Your task to perform on an android device: turn on improve location accuracy Image 0: 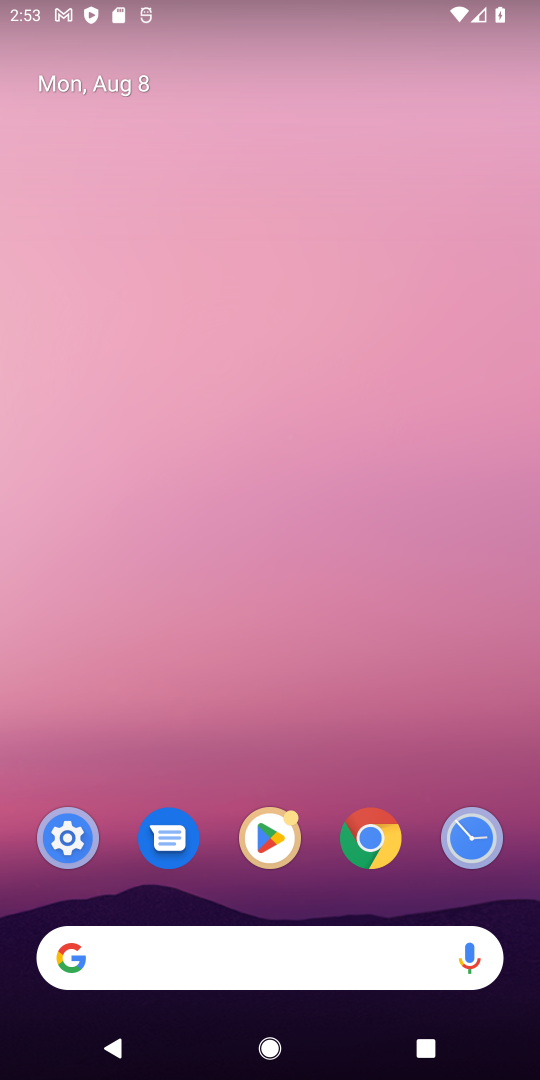
Step 0: drag from (307, 972) to (321, 194)
Your task to perform on an android device: turn on improve location accuracy Image 1: 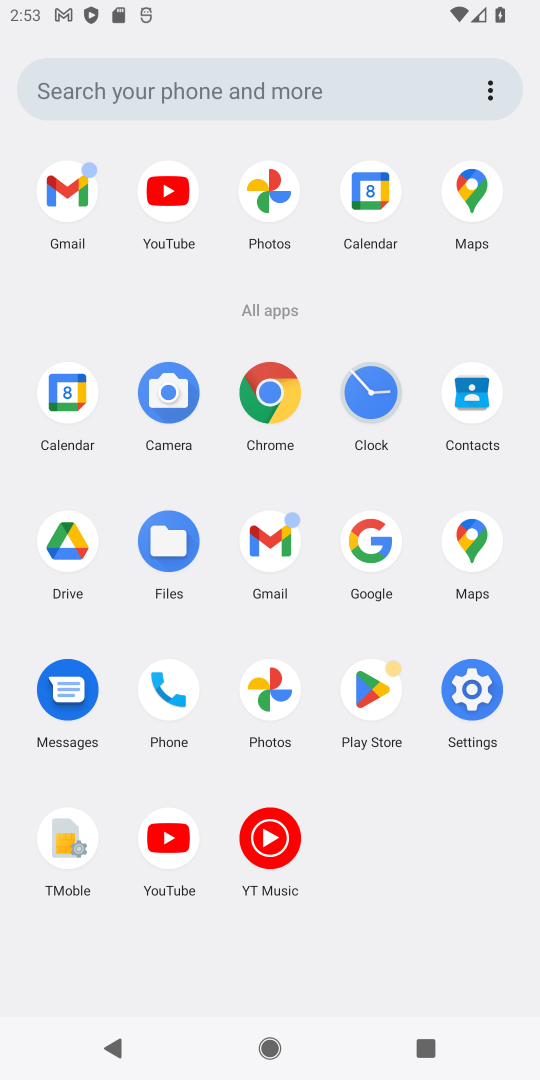
Step 1: click (469, 693)
Your task to perform on an android device: turn on improve location accuracy Image 2: 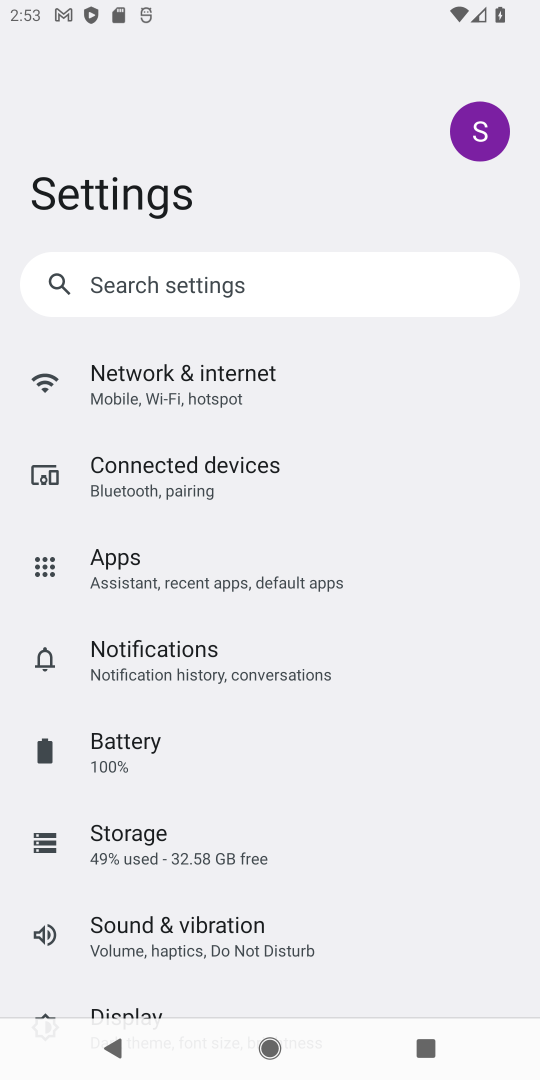
Step 2: drag from (228, 740) to (328, 521)
Your task to perform on an android device: turn on improve location accuracy Image 3: 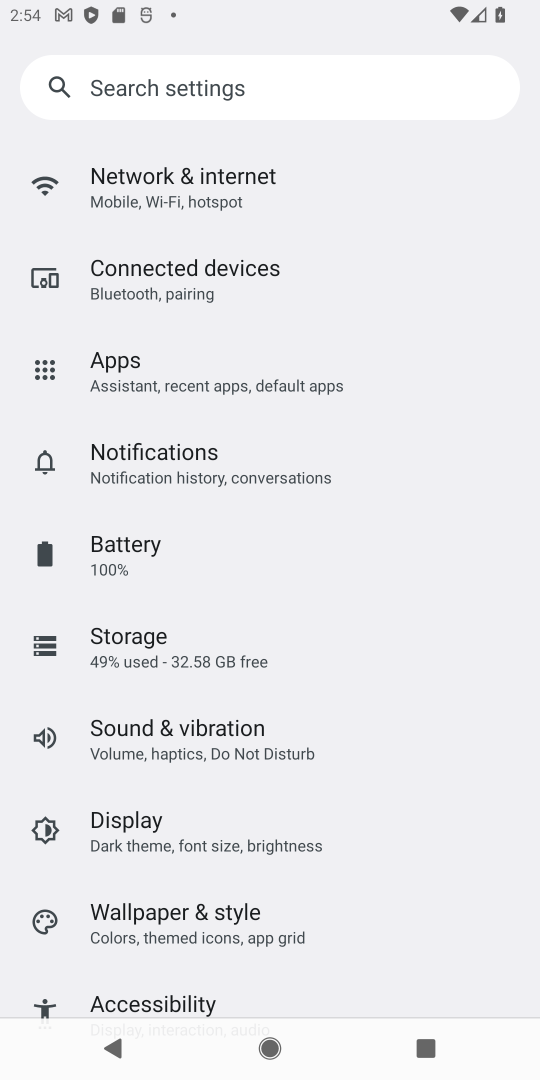
Step 3: drag from (237, 822) to (322, 663)
Your task to perform on an android device: turn on improve location accuracy Image 4: 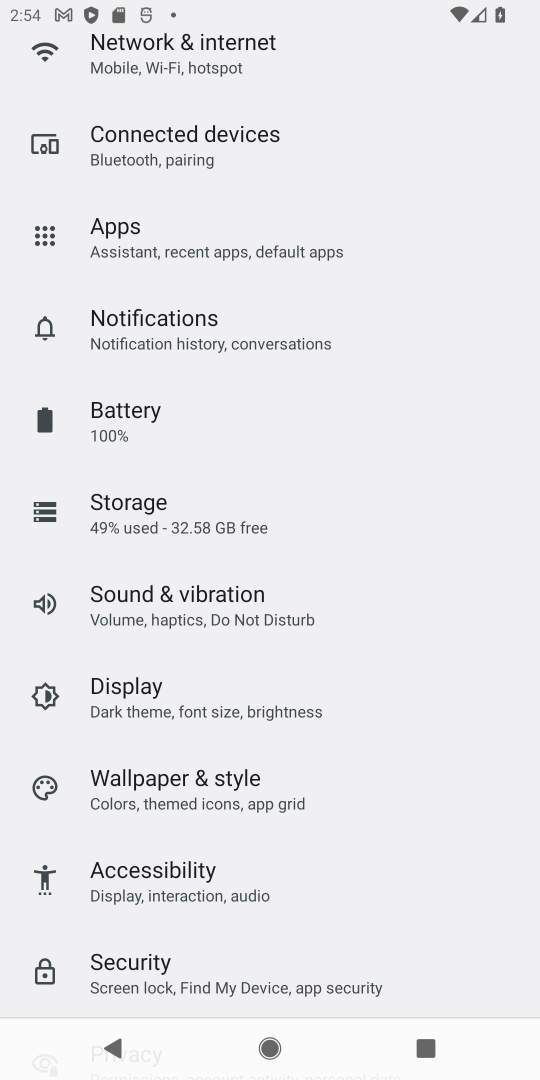
Step 4: drag from (237, 846) to (326, 710)
Your task to perform on an android device: turn on improve location accuracy Image 5: 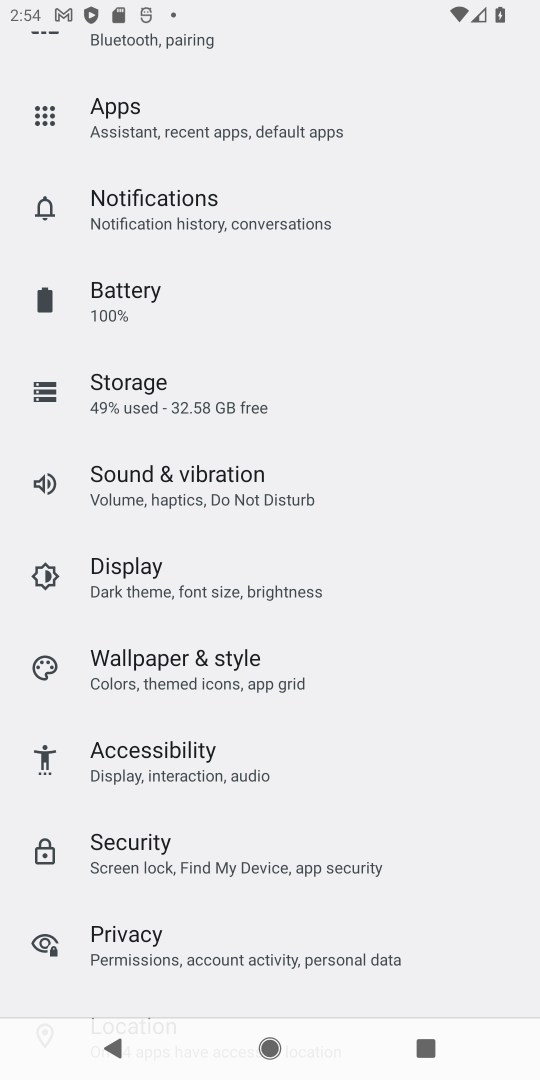
Step 5: drag from (208, 899) to (304, 738)
Your task to perform on an android device: turn on improve location accuracy Image 6: 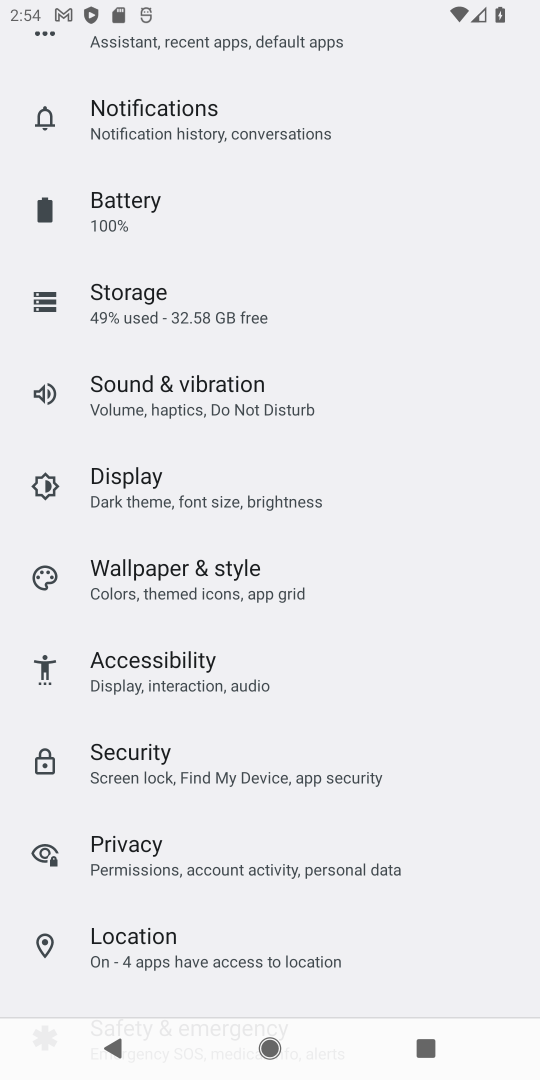
Step 6: click (201, 964)
Your task to perform on an android device: turn on improve location accuracy Image 7: 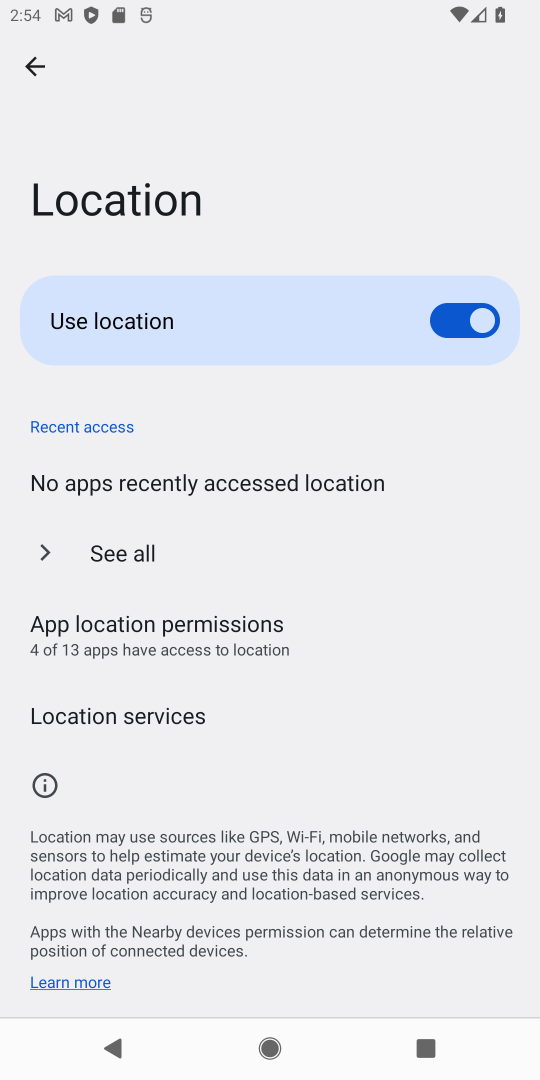
Step 7: click (191, 725)
Your task to perform on an android device: turn on improve location accuracy Image 8: 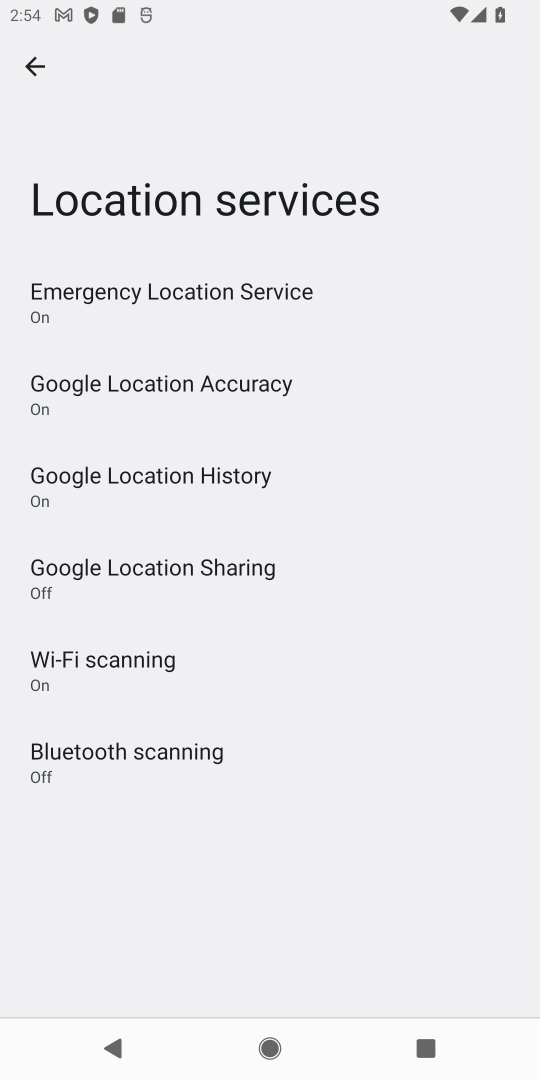
Step 8: click (222, 389)
Your task to perform on an android device: turn on improve location accuracy Image 9: 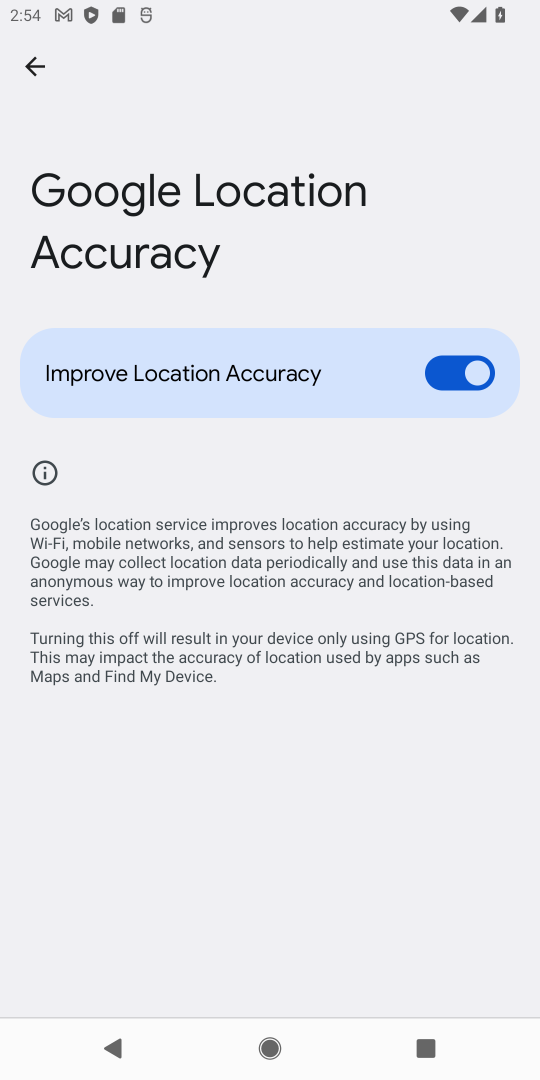
Step 9: task complete